Your task to perform on an android device: empty trash in google photos Image 0: 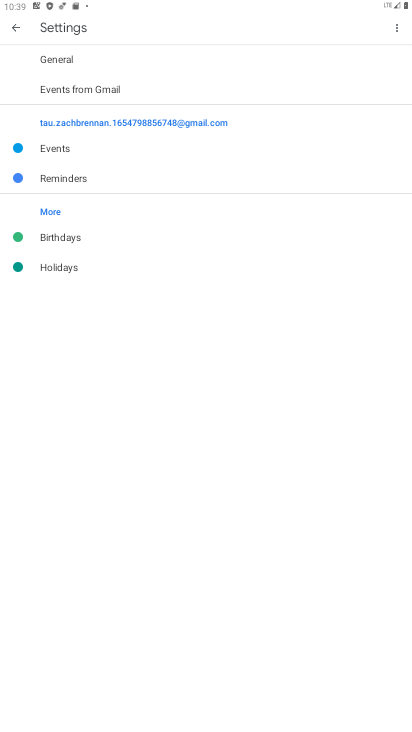
Step 0: press home button
Your task to perform on an android device: empty trash in google photos Image 1: 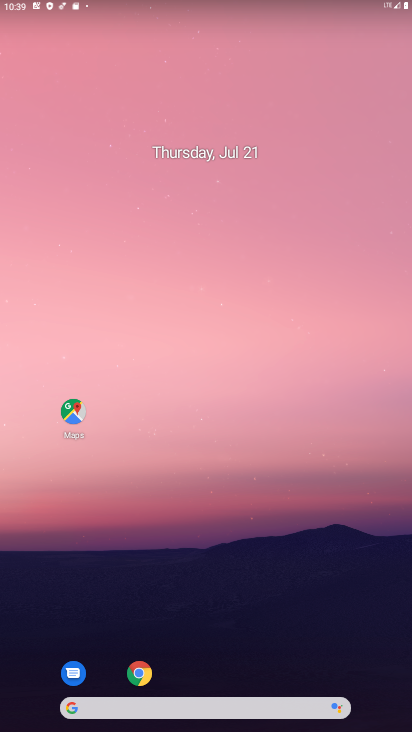
Step 1: drag from (214, 653) to (220, 188)
Your task to perform on an android device: empty trash in google photos Image 2: 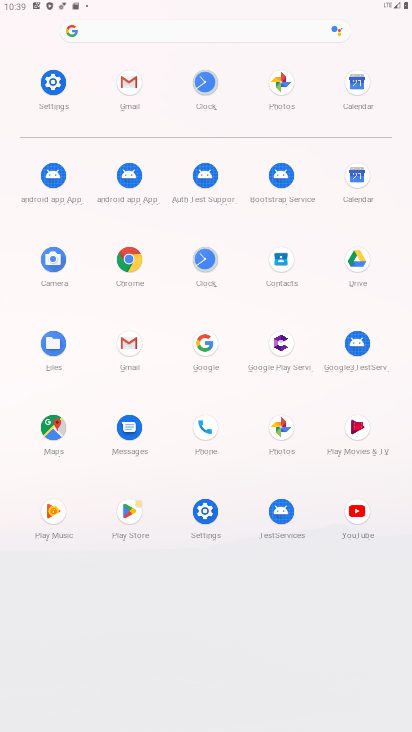
Step 2: click (281, 441)
Your task to perform on an android device: empty trash in google photos Image 3: 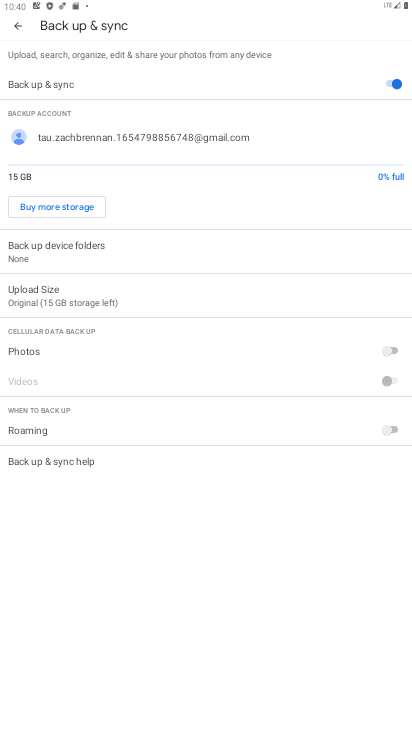
Step 3: click (13, 26)
Your task to perform on an android device: empty trash in google photos Image 4: 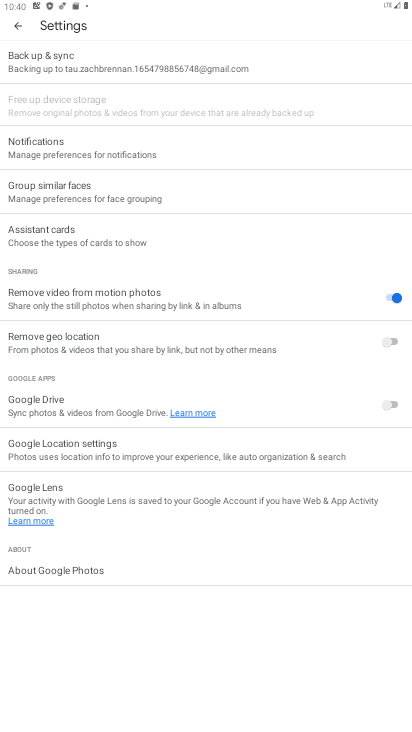
Step 4: click (13, 26)
Your task to perform on an android device: empty trash in google photos Image 5: 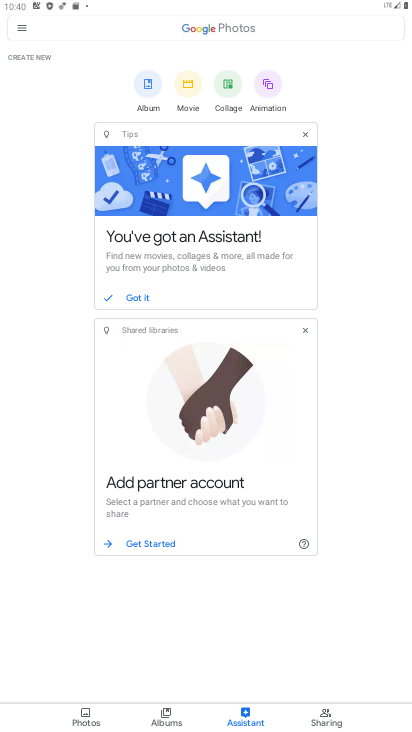
Step 5: click (22, 28)
Your task to perform on an android device: empty trash in google photos Image 6: 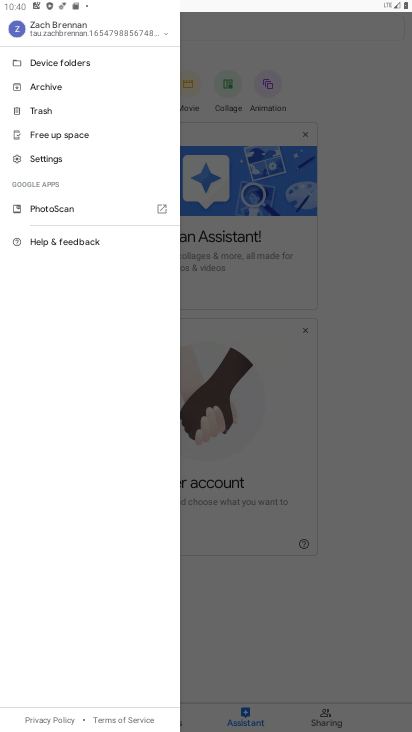
Step 6: click (50, 113)
Your task to perform on an android device: empty trash in google photos Image 7: 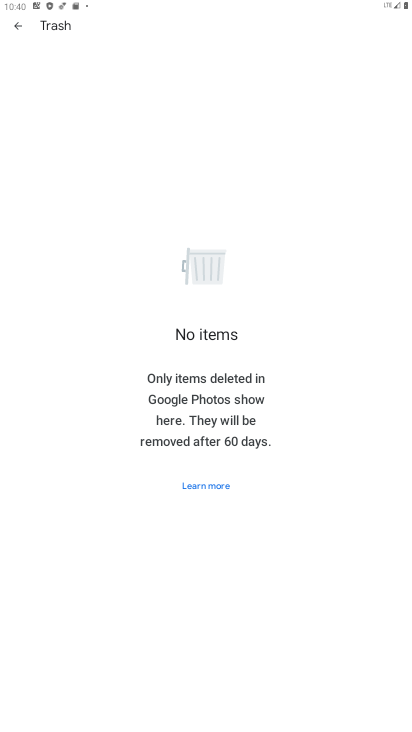
Step 7: task complete